Your task to perform on an android device: change the clock display to show seconds Image 0: 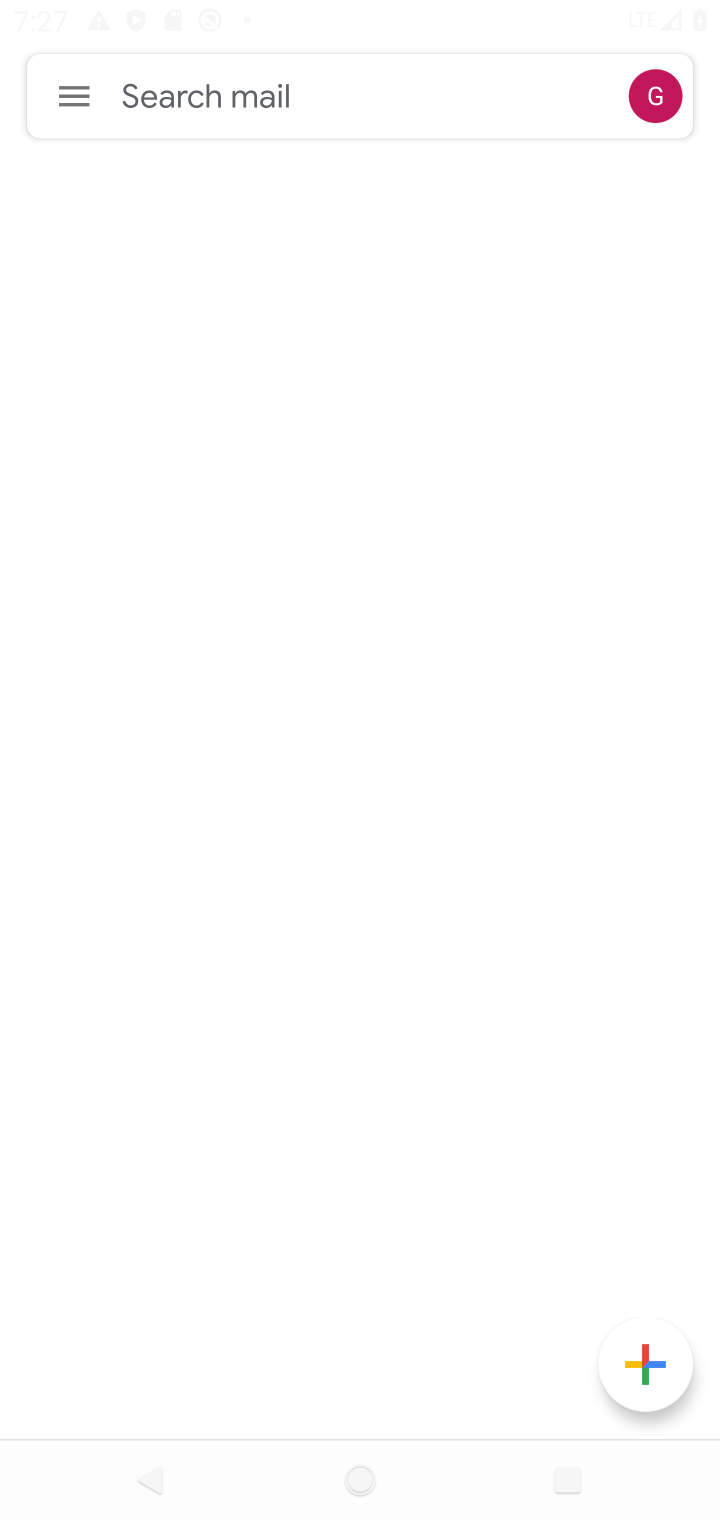
Step 0: press home button
Your task to perform on an android device: change the clock display to show seconds Image 1: 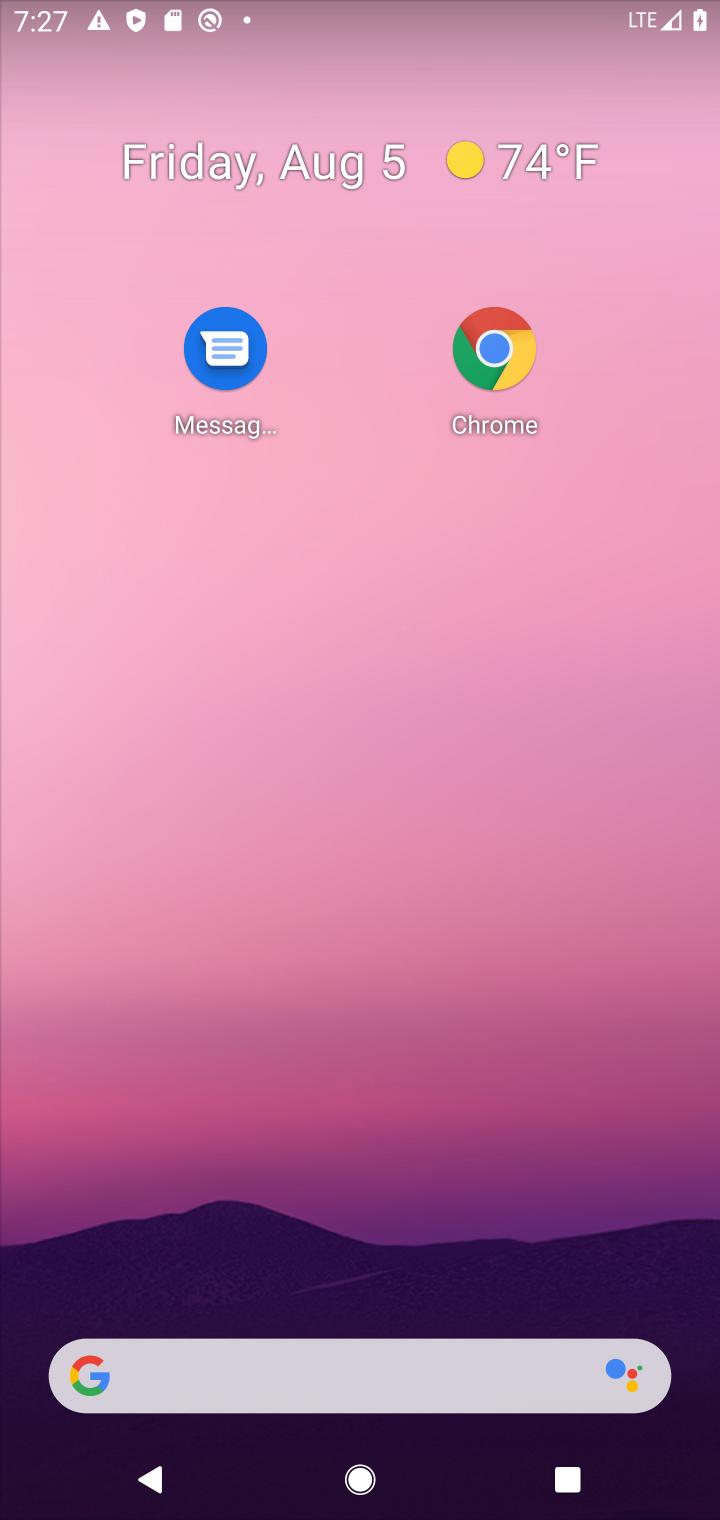
Step 1: drag from (416, 1401) to (283, 417)
Your task to perform on an android device: change the clock display to show seconds Image 2: 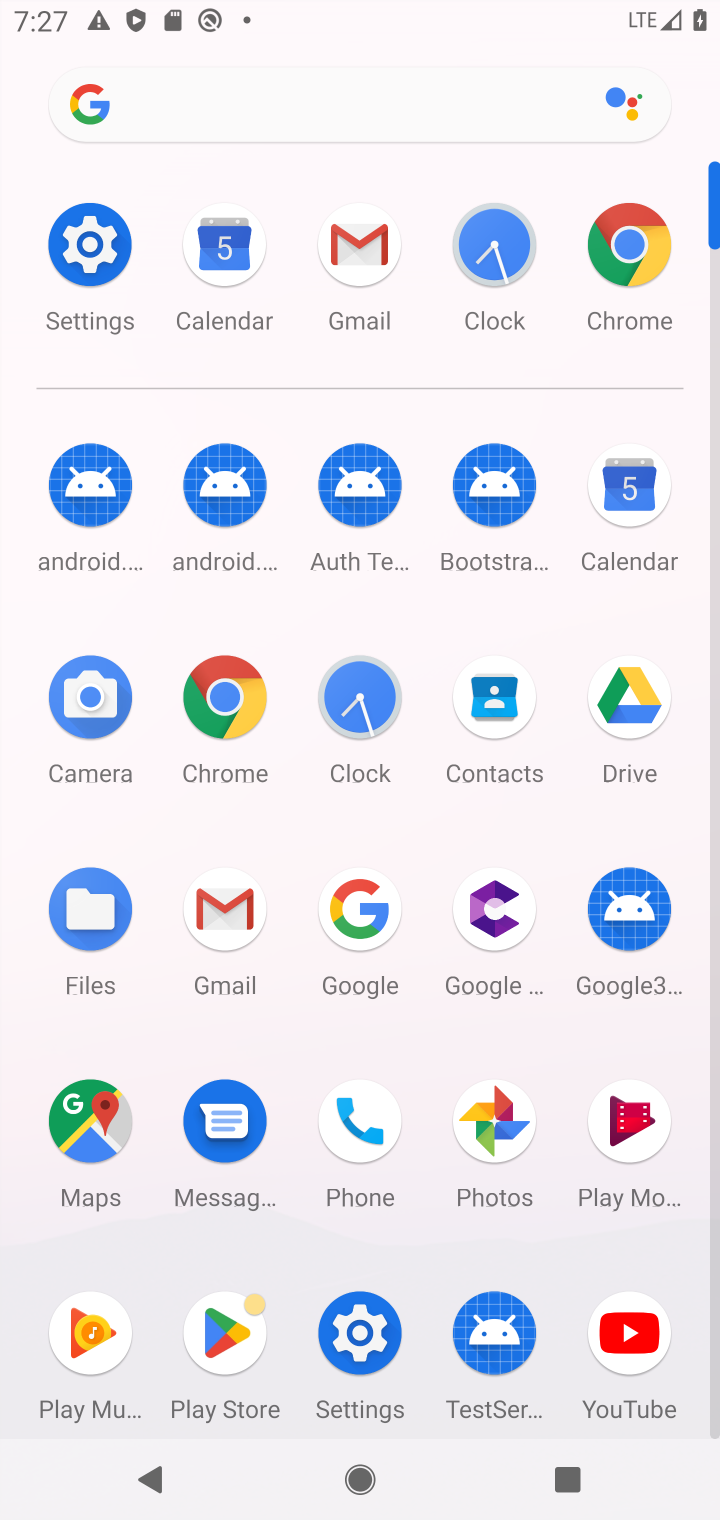
Step 2: click (478, 248)
Your task to perform on an android device: change the clock display to show seconds Image 3: 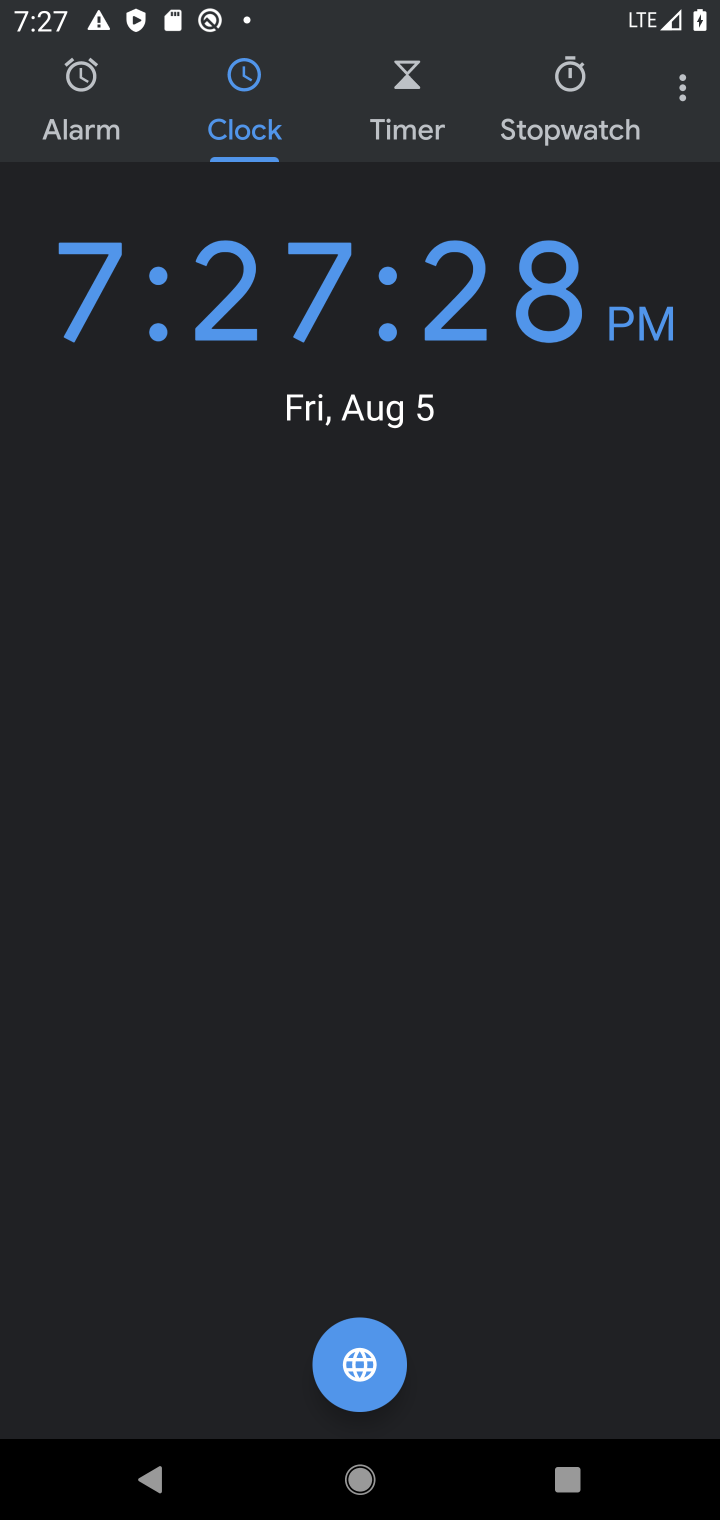
Step 3: click (656, 85)
Your task to perform on an android device: change the clock display to show seconds Image 4: 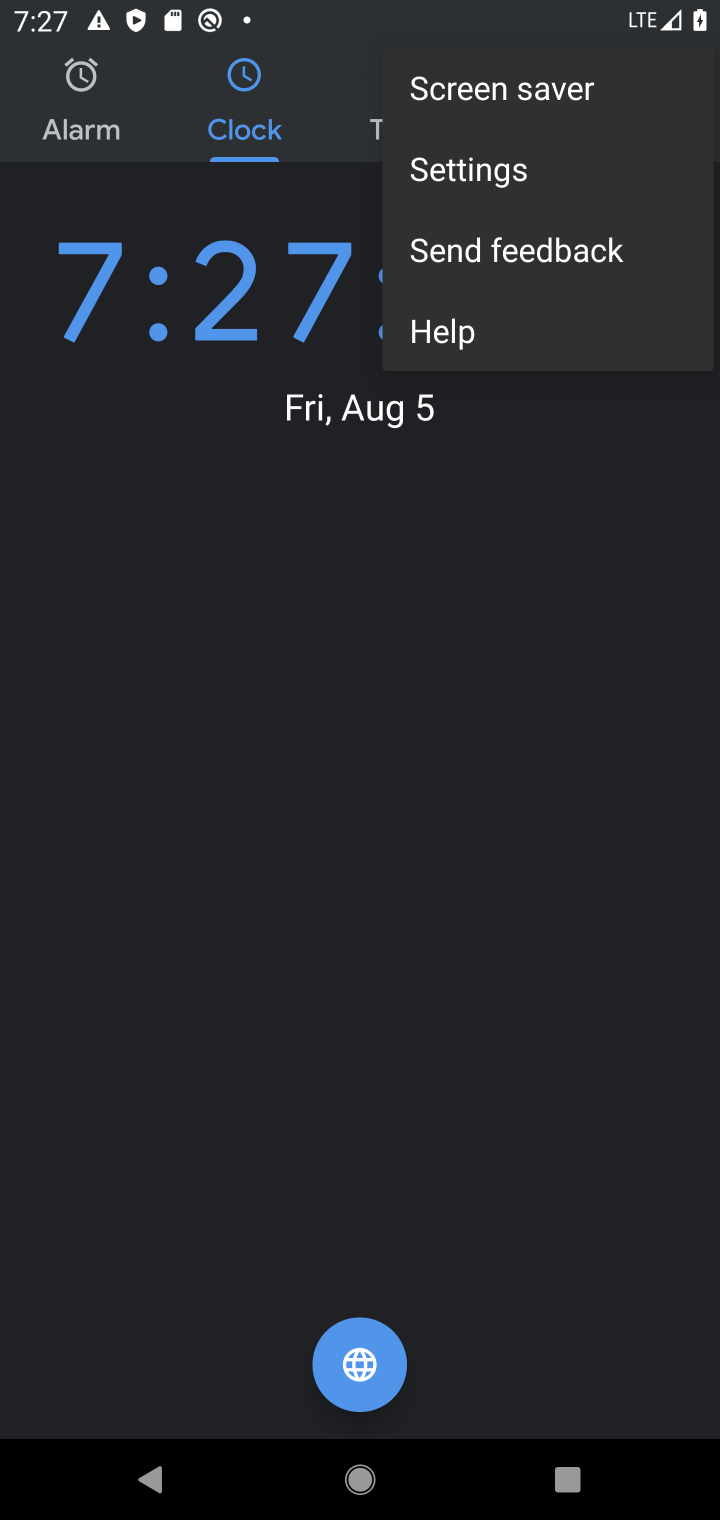
Step 4: click (492, 177)
Your task to perform on an android device: change the clock display to show seconds Image 5: 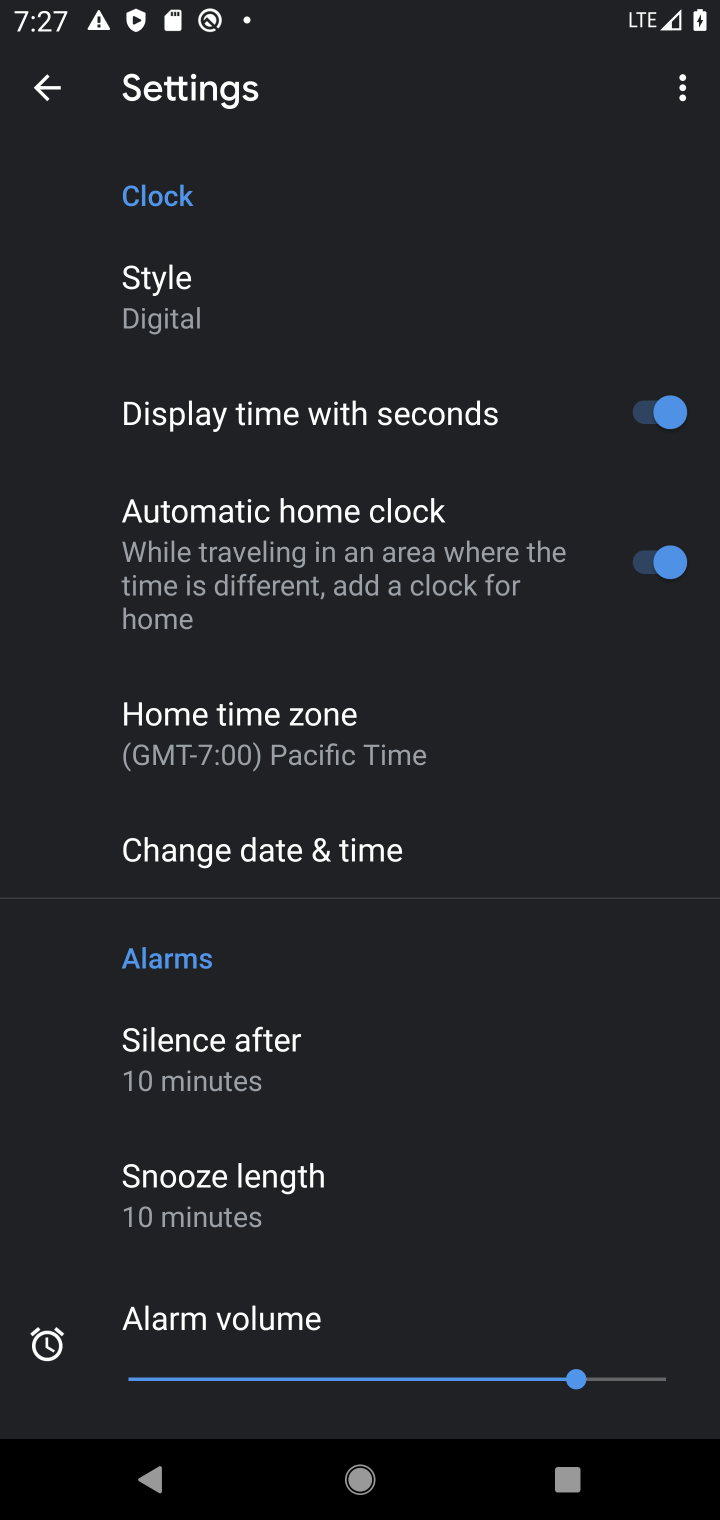
Step 5: click (452, 432)
Your task to perform on an android device: change the clock display to show seconds Image 6: 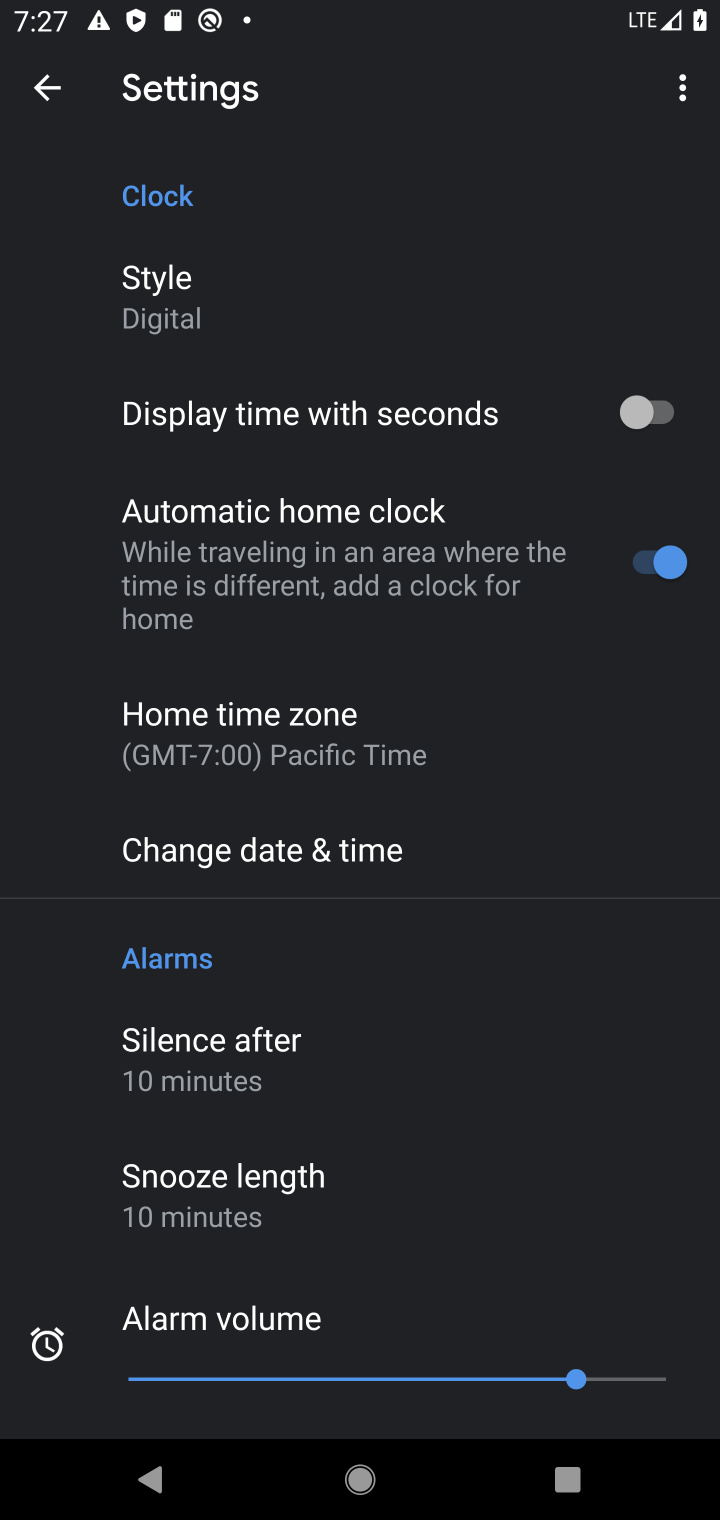
Step 6: task complete